Your task to perform on an android device: Is it going to rain this weekend? Image 0: 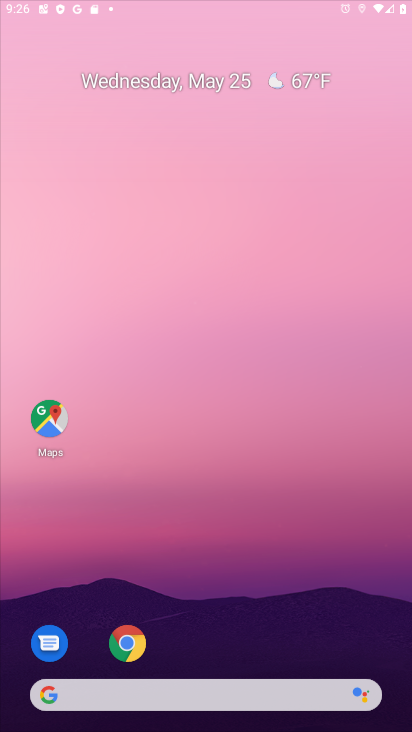
Step 0: press home button
Your task to perform on an android device: Is it going to rain this weekend? Image 1: 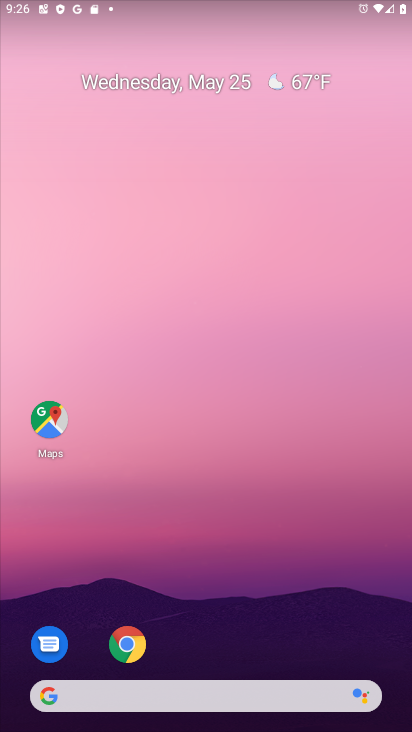
Step 1: click (306, 77)
Your task to perform on an android device: Is it going to rain this weekend? Image 2: 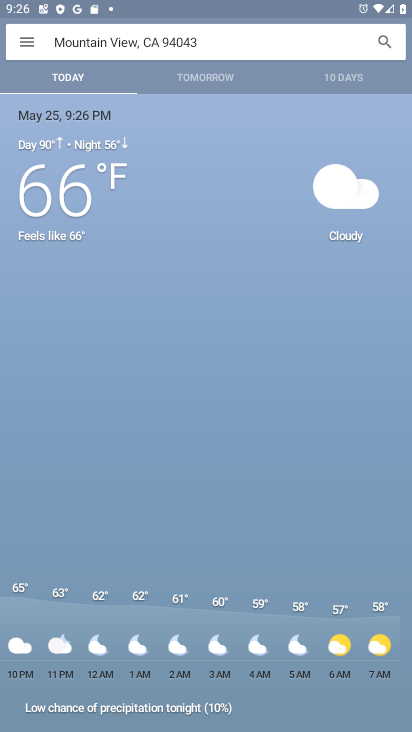
Step 2: click (341, 78)
Your task to perform on an android device: Is it going to rain this weekend? Image 3: 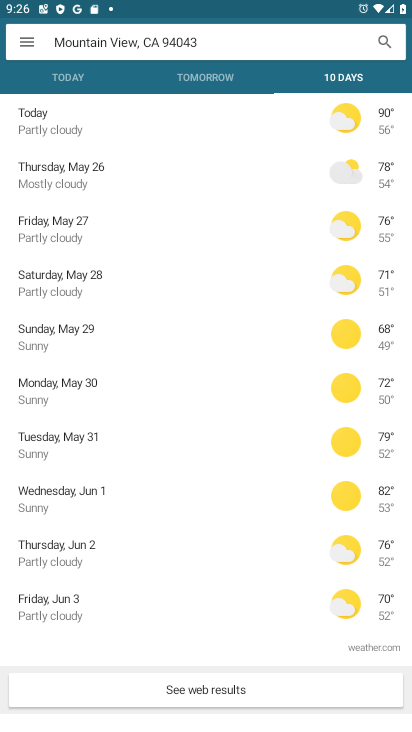
Step 3: task complete